Your task to perform on an android device: Search for bose soundlink mini on walmart, select the first entry, and add it to the cart. Image 0: 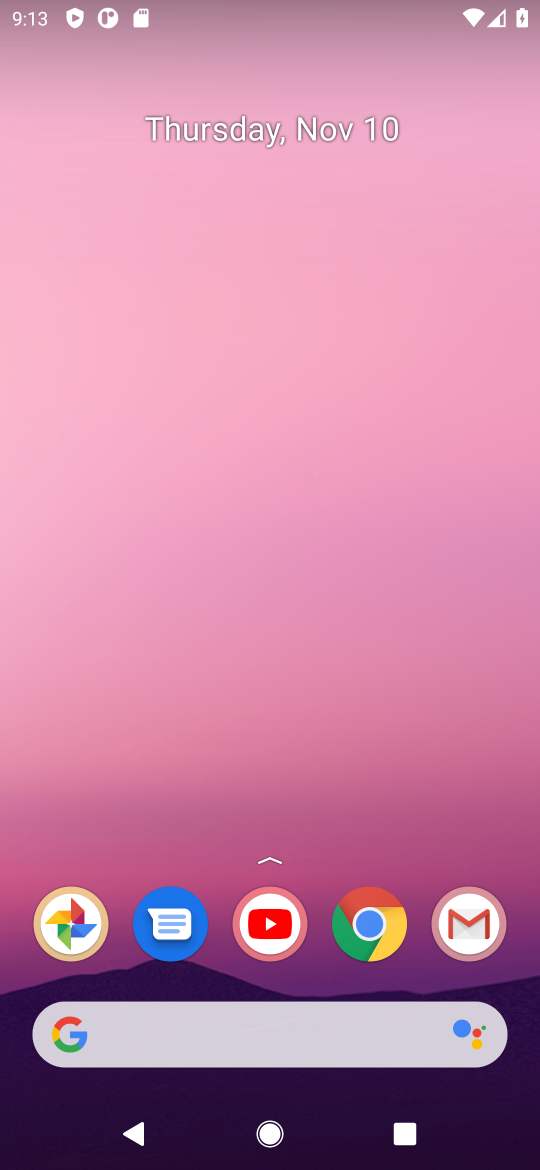
Step 0: click (381, 937)
Your task to perform on an android device: Search for bose soundlink mini on walmart, select the first entry, and add it to the cart. Image 1: 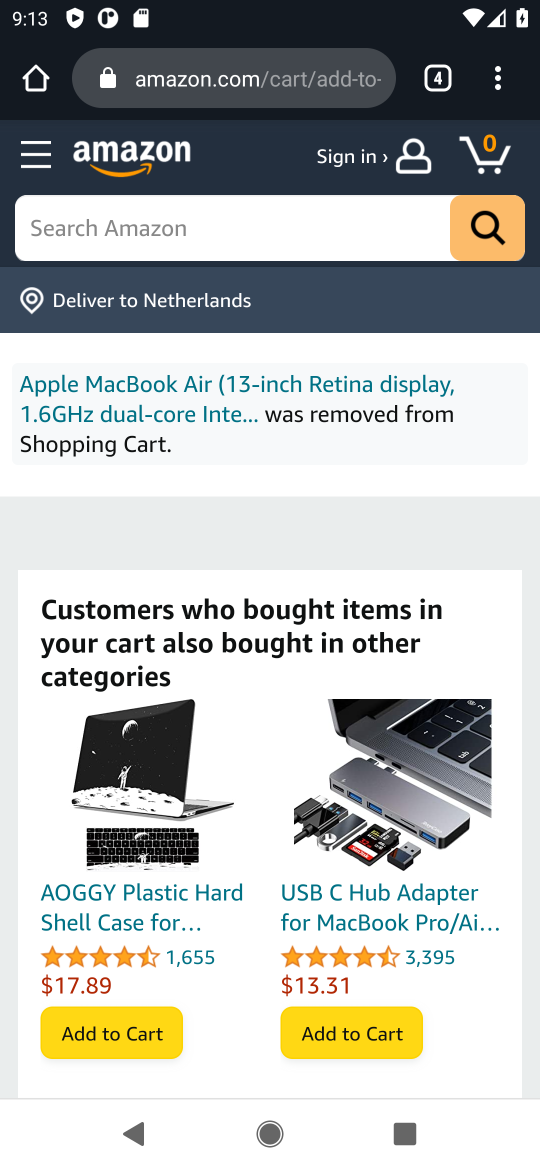
Step 1: click (206, 96)
Your task to perform on an android device: Search for bose soundlink mini on walmart, select the first entry, and add it to the cart. Image 2: 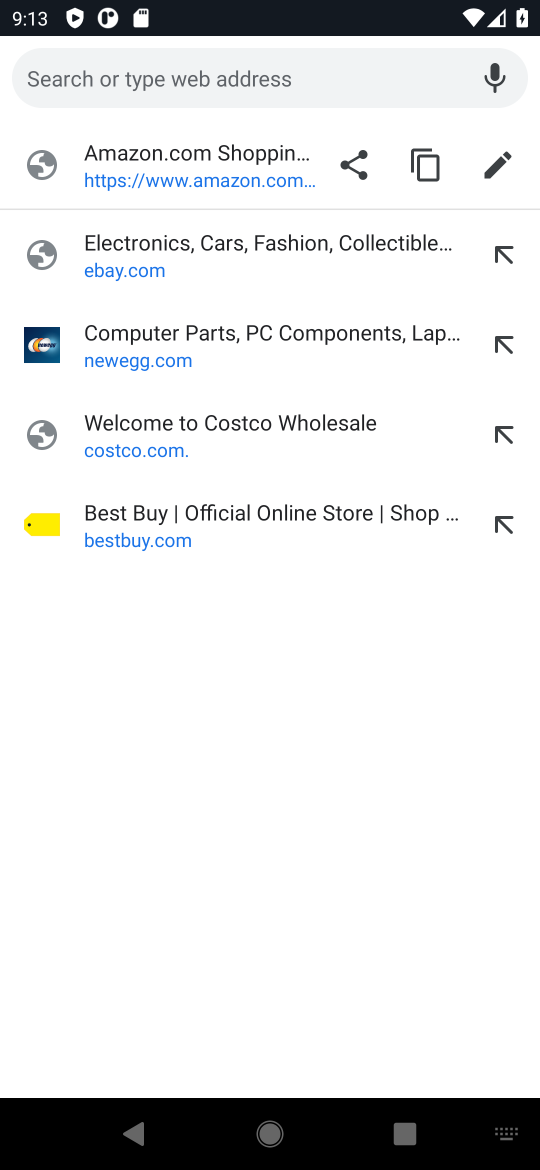
Step 2: type "walmart.com"
Your task to perform on an android device: Search for bose soundlink mini on walmart, select the first entry, and add it to the cart. Image 3: 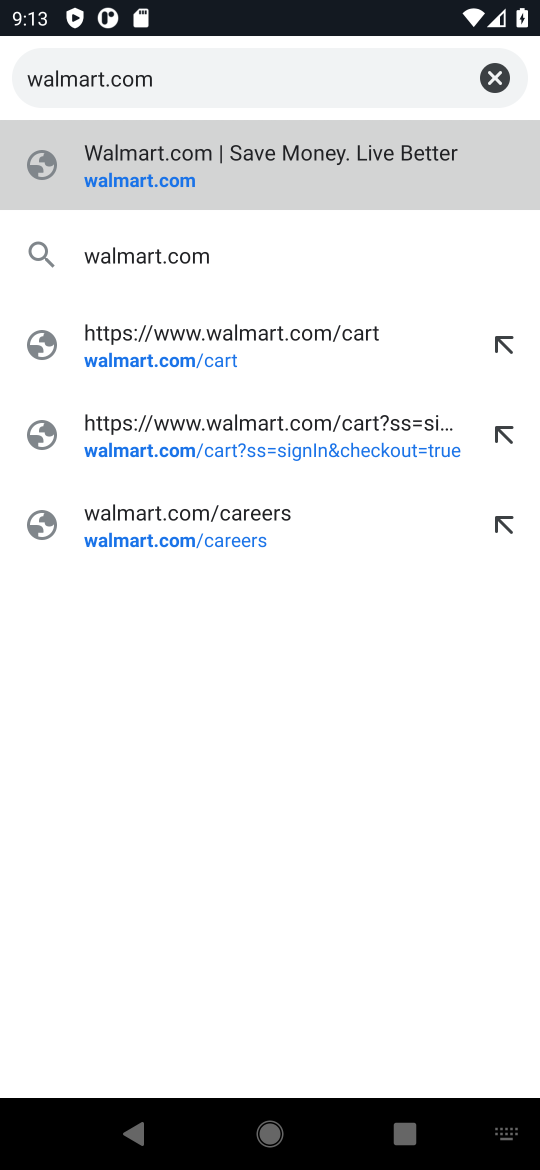
Step 3: click (153, 189)
Your task to perform on an android device: Search for bose soundlink mini on walmart, select the first entry, and add it to the cart. Image 4: 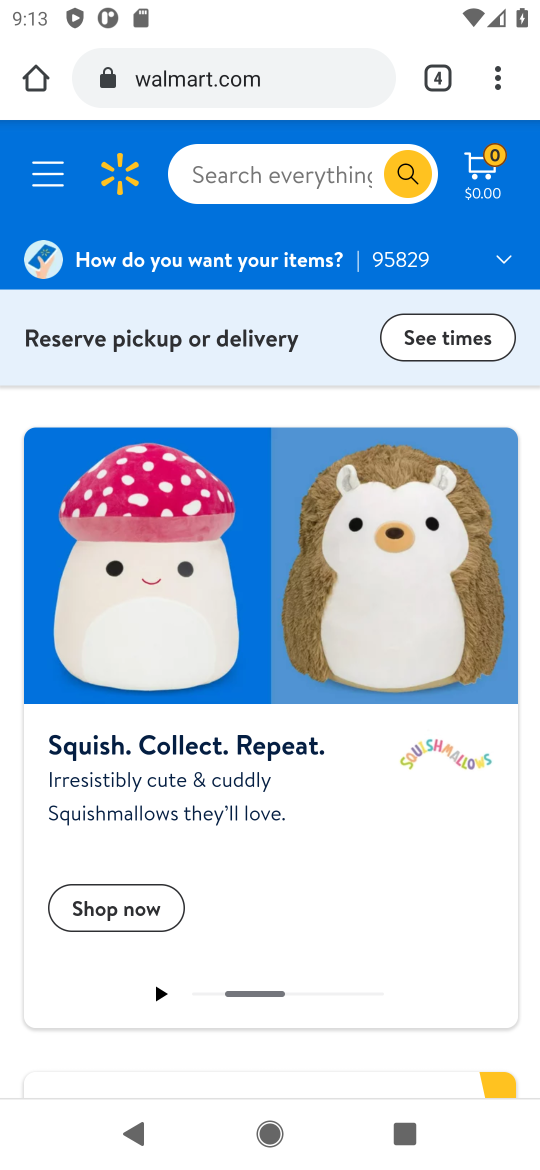
Step 4: click (277, 189)
Your task to perform on an android device: Search for bose soundlink mini on walmart, select the first entry, and add it to the cart. Image 5: 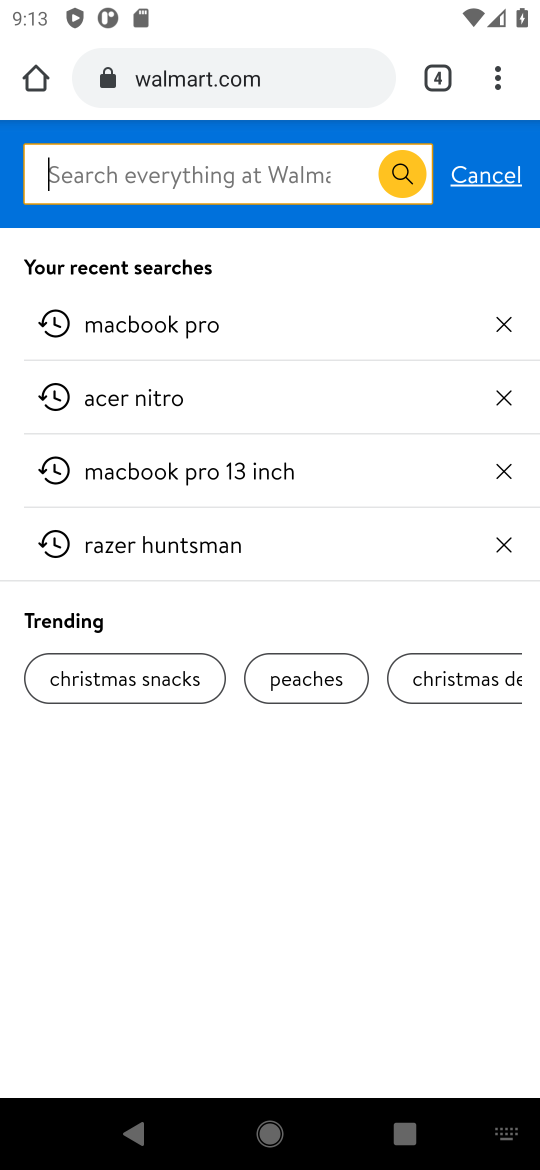
Step 5: type "bose soundlink mini"
Your task to perform on an android device: Search for bose soundlink mini on walmart, select the first entry, and add it to the cart. Image 6: 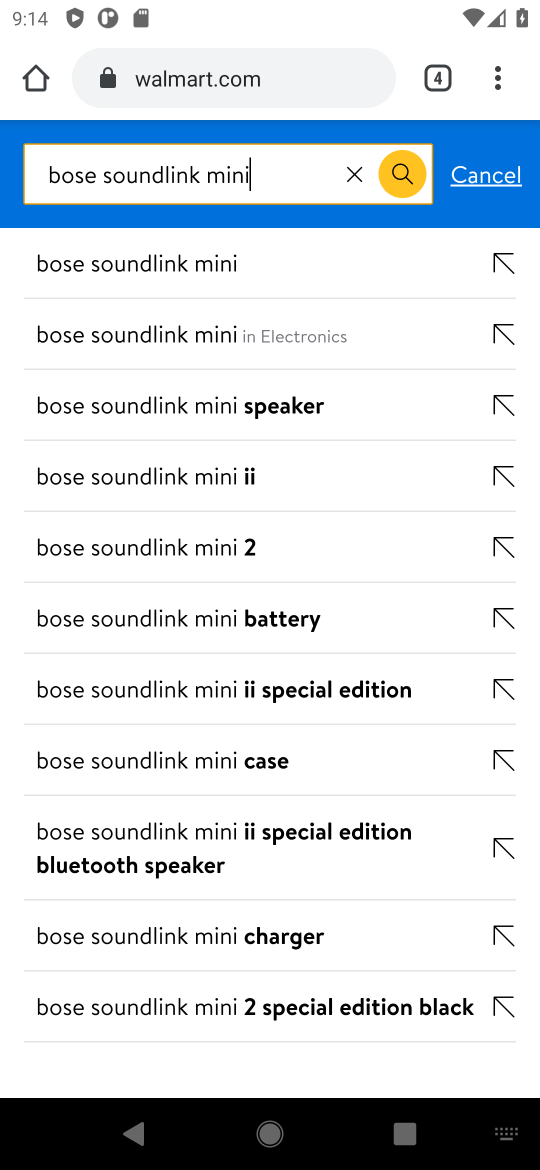
Step 6: click (217, 273)
Your task to perform on an android device: Search for bose soundlink mini on walmart, select the first entry, and add it to the cart. Image 7: 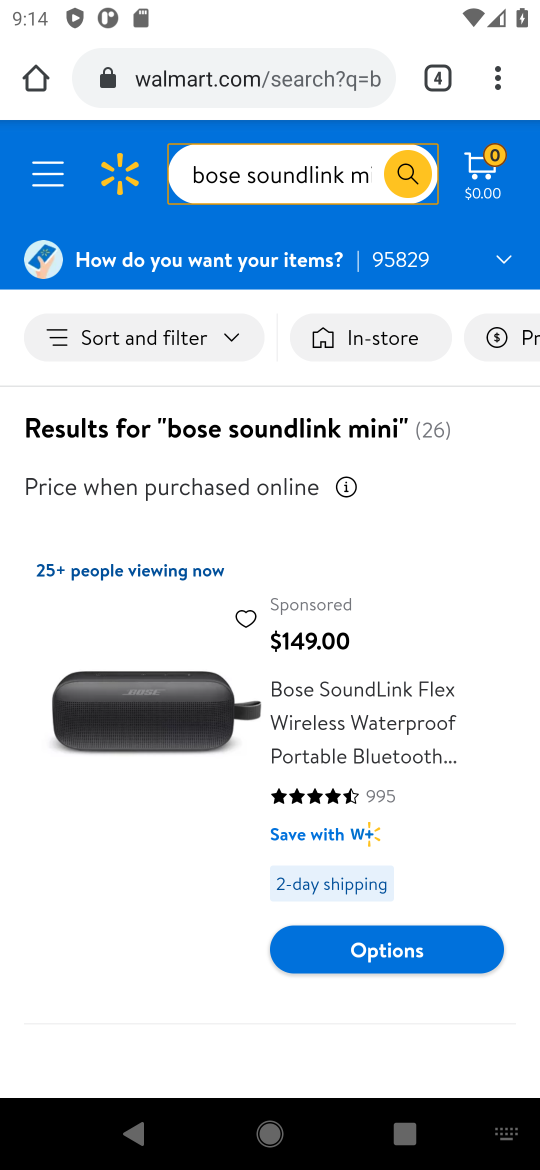
Step 7: task complete